Your task to perform on an android device: Go to Yahoo.com Image 0: 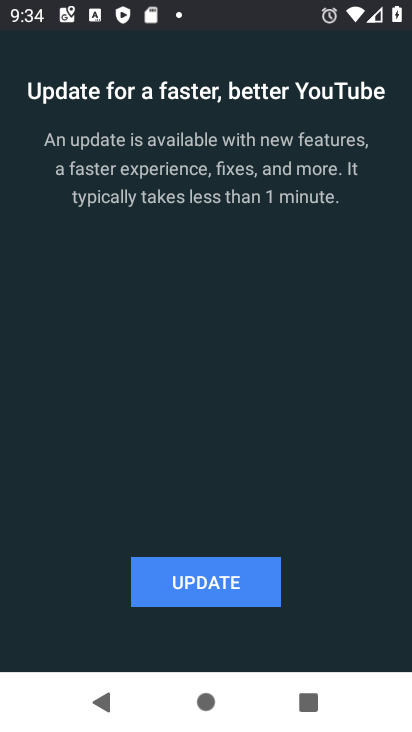
Step 0: drag from (343, 563) to (264, 118)
Your task to perform on an android device: Go to Yahoo.com Image 1: 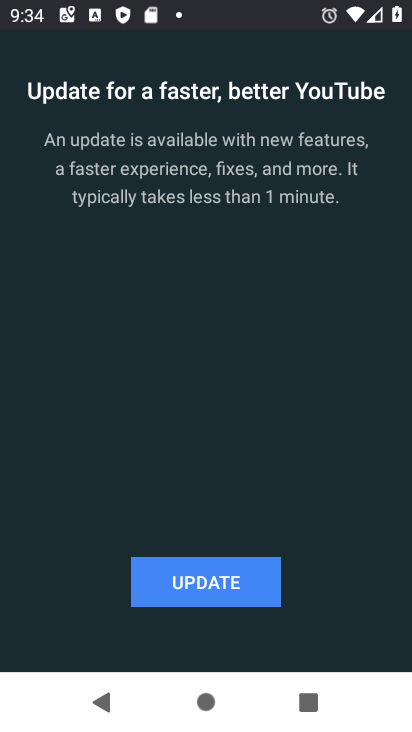
Step 1: press back button
Your task to perform on an android device: Go to Yahoo.com Image 2: 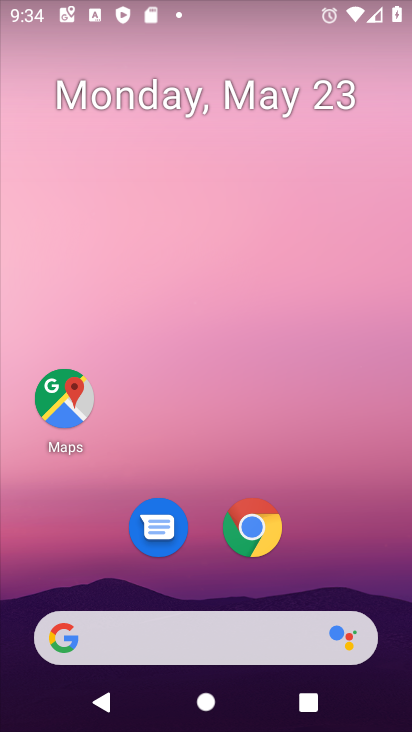
Step 2: drag from (319, 454) to (246, 35)
Your task to perform on an android device: Go to Yahoo.com Image 3: 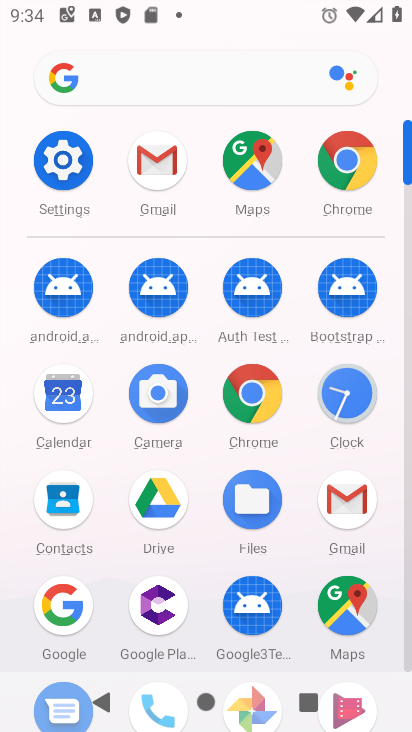
Step 3: click (253, 383)
Your task to perform on an android device: Go to Yahoo.com Image 4: 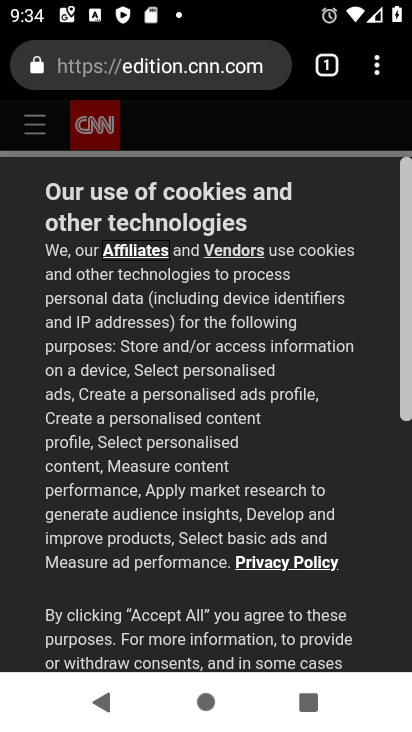
Step 4: click (182, 54)
Your task to perform on an android device: Go to Yahoo.com Image 5: 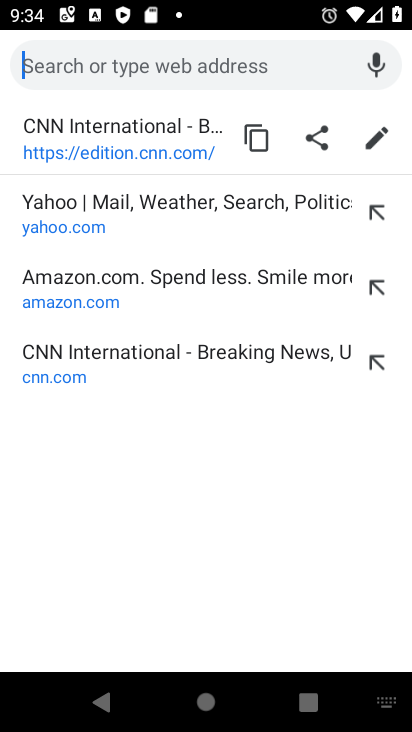
Step 5: type "Yahoo.com"
Your task to perform on an android device: Go to Yahoo.com Image 6: 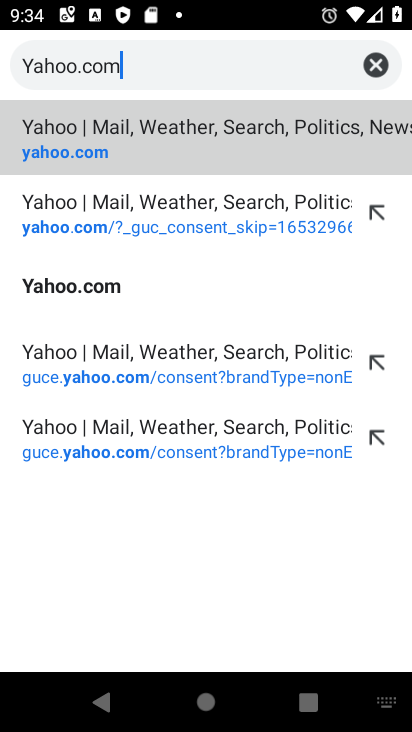
Step 6: click (149, 142)
Your task to perform on an android device: Go to Yahoo.com Image 7: 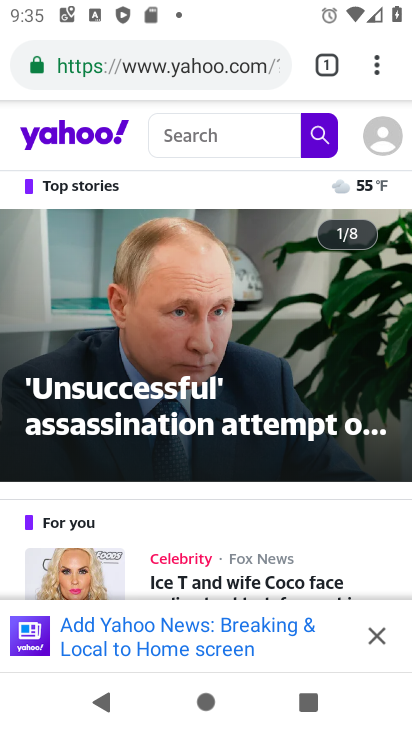
Step 7: task complete